Your task to perform on an android device: Search for the new Jordans on Nike.com Image 0: 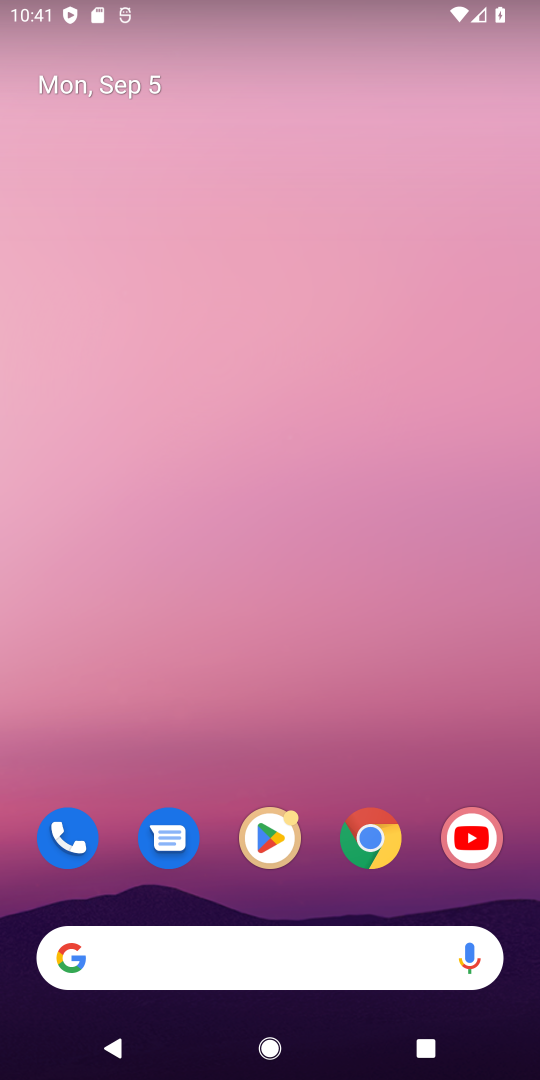
Step 0: click (299, 962)
Your task to perform on an android device: Search for the new Jordans on Nike.com Image 1: 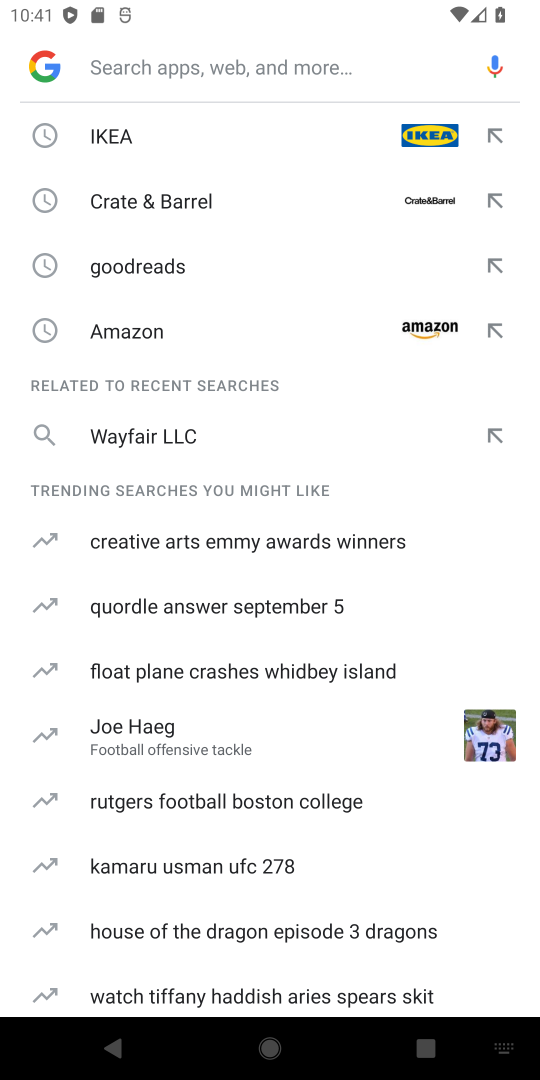
Step 1: type "Nike.com"
Your task to perform on an android device: Search for the new Jordans on Nike.com Image 2: 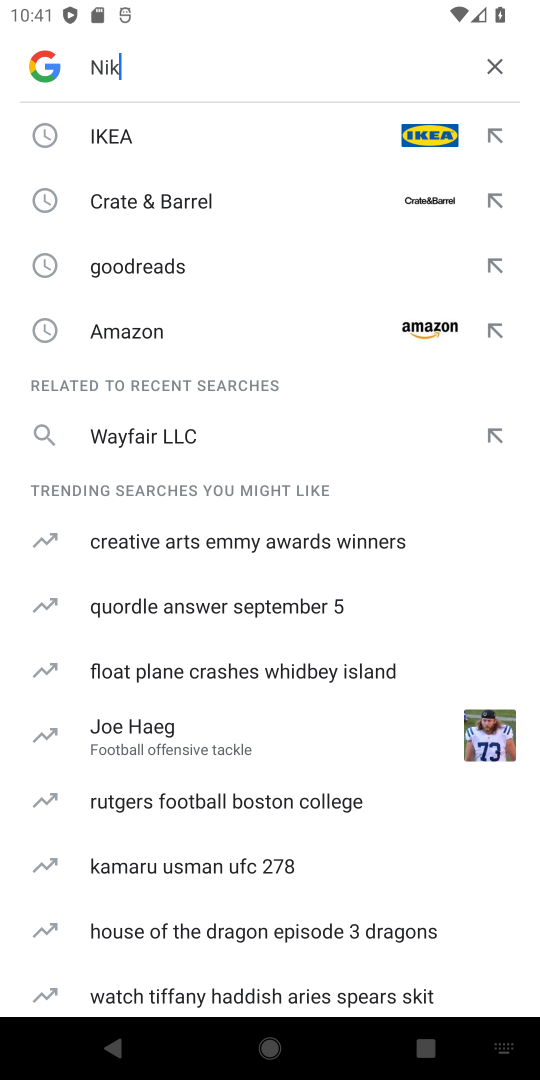
Step 2: type ""
Your task to perform on an android device: Search for the new Jordans on Nike.com Image 3: 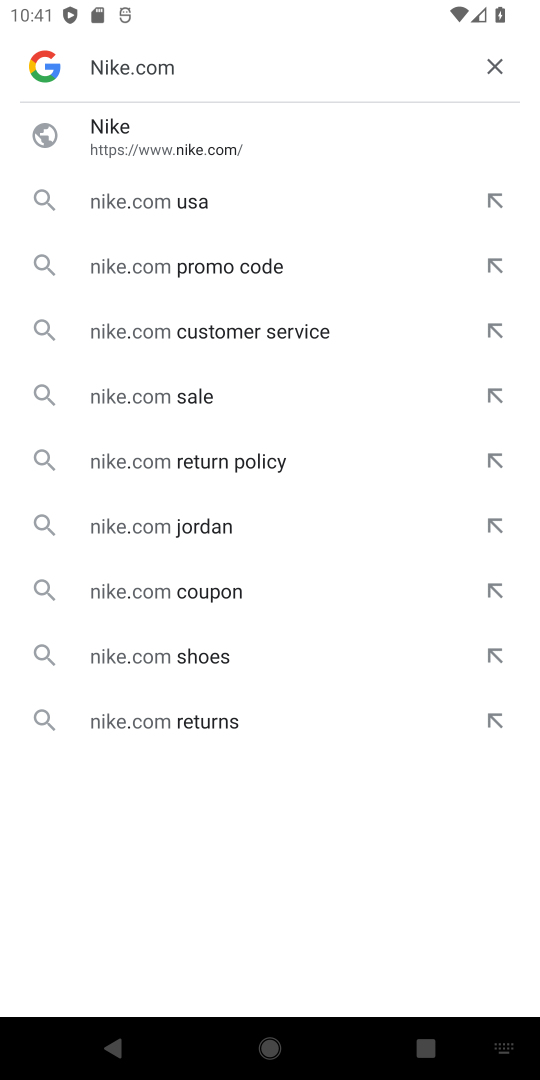
Step 3: click (167, 159)
Your task to perform on an android device: Search for the new Jordans on Nike.com Image 4: 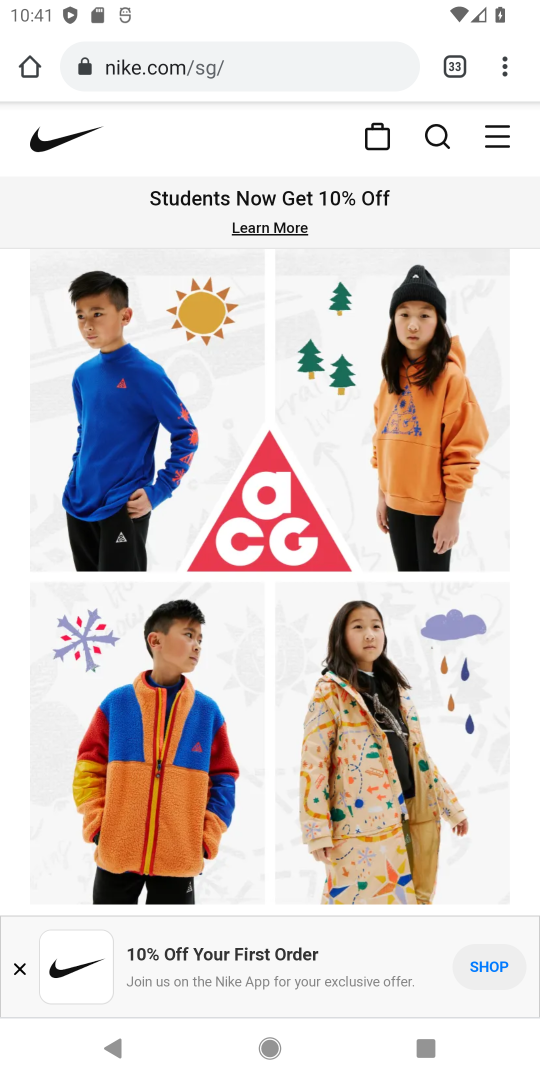
Step 4: click (384, 137)
Your task to perform on an android device: Search for the new Jordans on Nike.com Image 5: 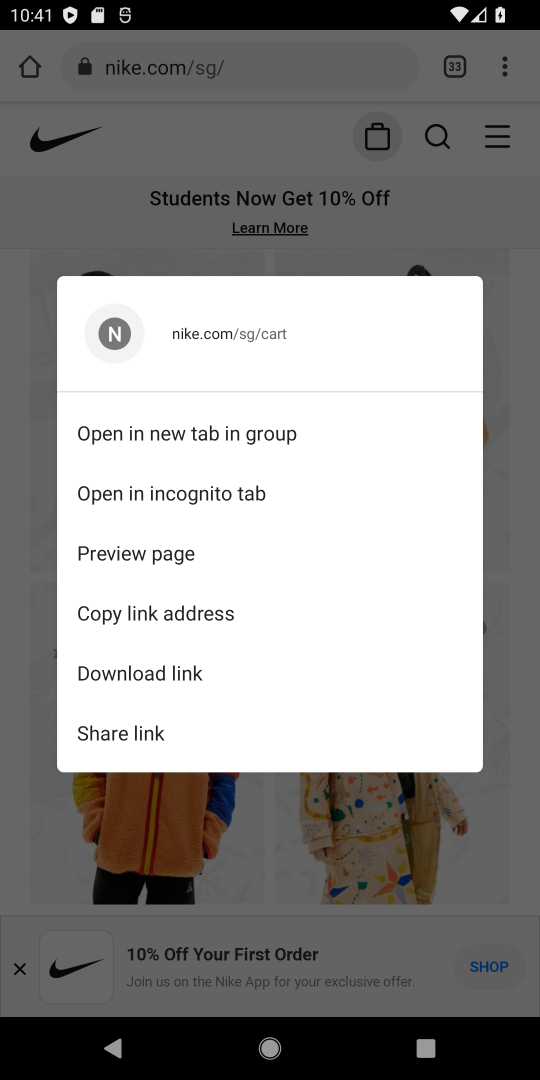
Step 5: click (439, 130)
Your task to perform on an android device: Search for the new Jordans on Nike.com Image 6: 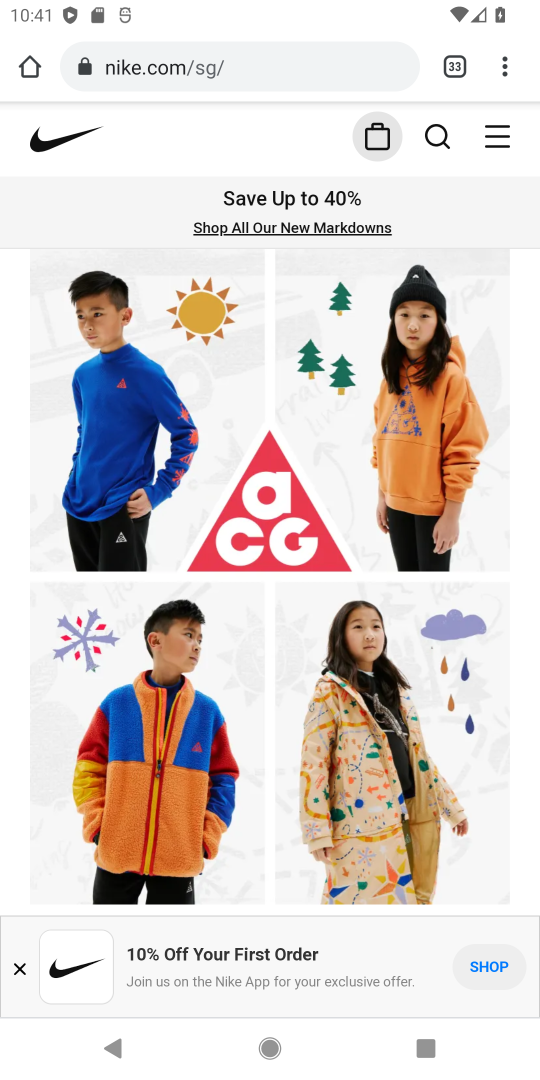
Step 6: click (443, 142)
Your task to perform on an android device: Search for the new Jordans on Nike.com Image 7: 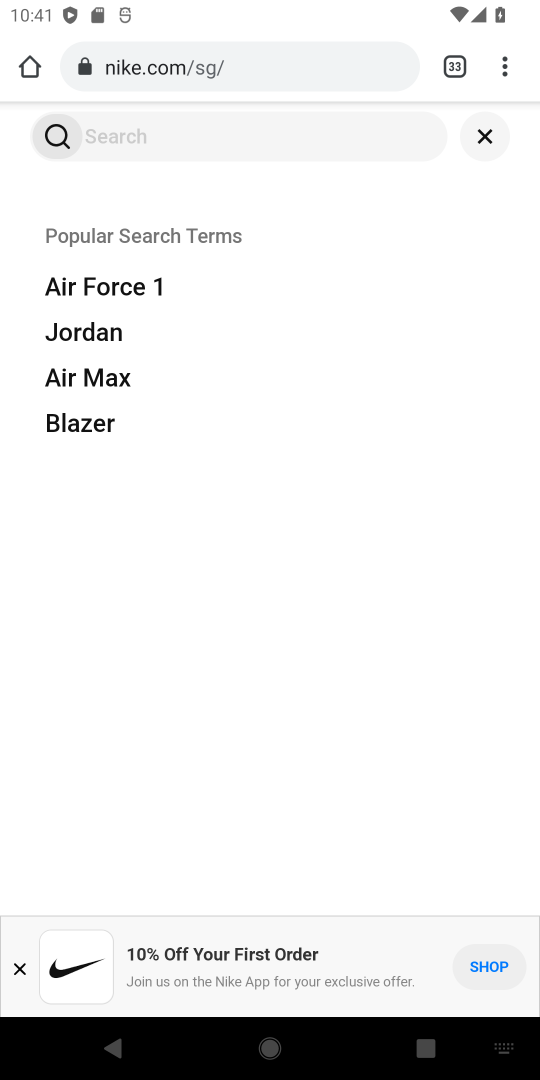
Step 7: type "Jordans "
Your task to perform on an android device: Search for the new Jordans on Nike.com Image 8: 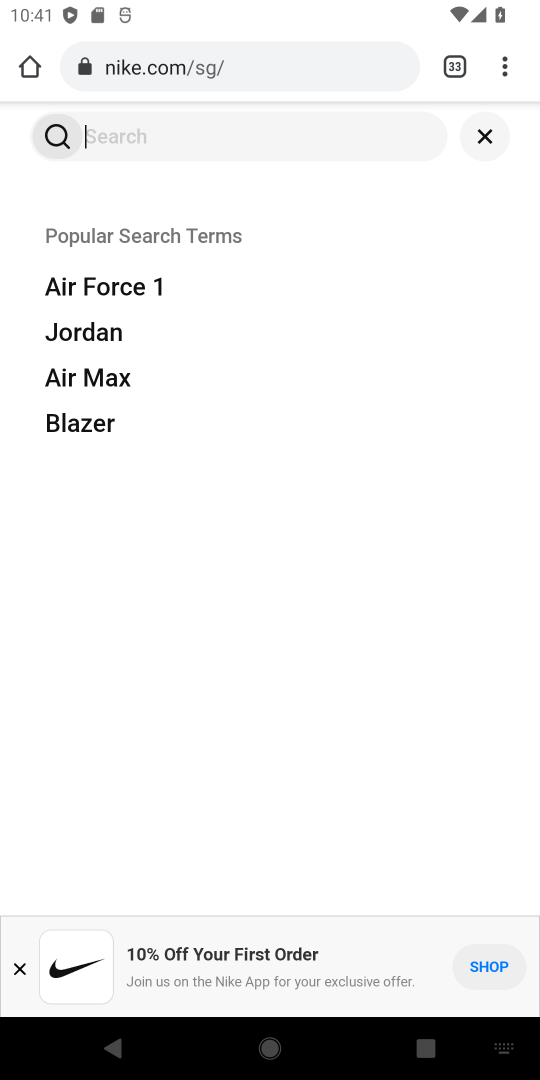
Step 8: type ""
Your task to perform on an android device: Search for the new Jordans on Nike.com Image 9: 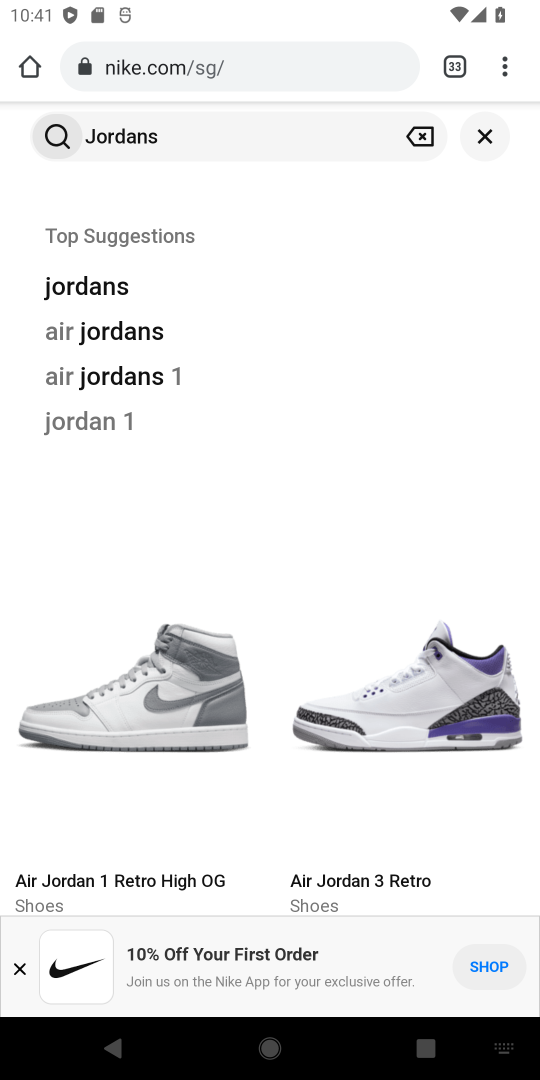
Step 9: click (103, 286)
Your task to perform on an android device: Search for the new Jordans on Nike.com Image 10: 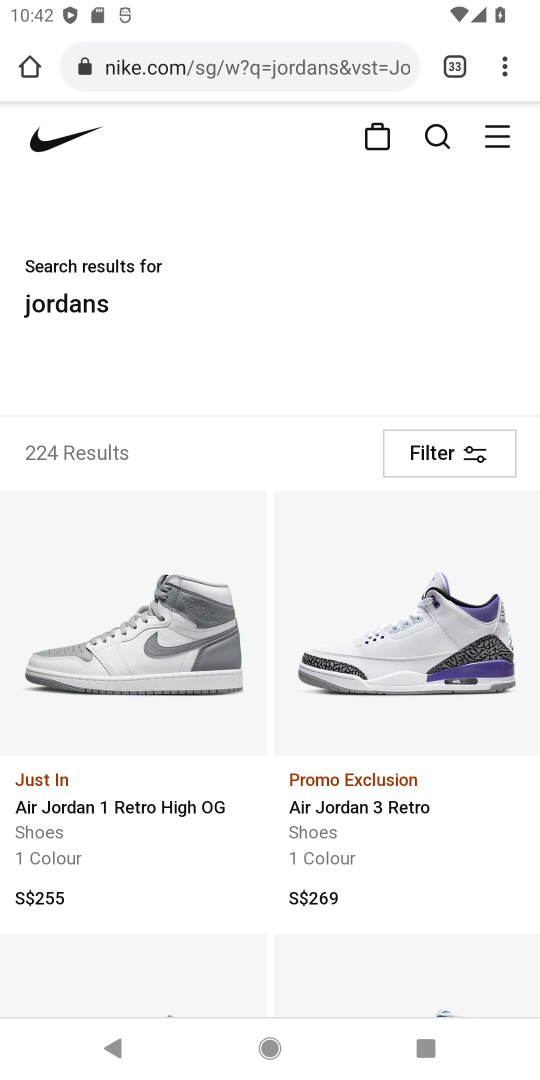
Step 10: task complete